Your task to perform on an android device: open app "Microsoft Outlook" Image 0: 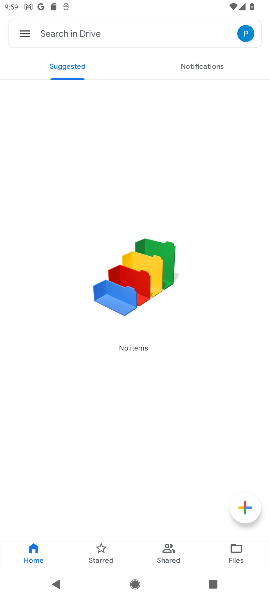
Step 0: press home button
Your task to perform on an android device: open app "Microsoft Outlook" Image 1: 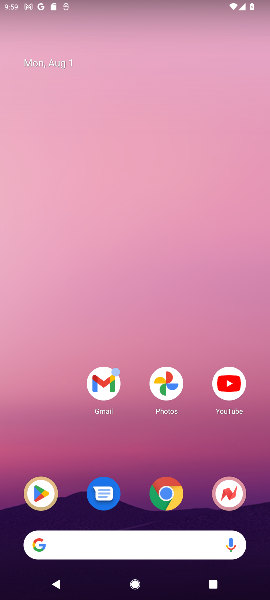
Step 1: click (51, 498)
Your task to perform on an android device: open app "Microsoft Outlook" Image 2: 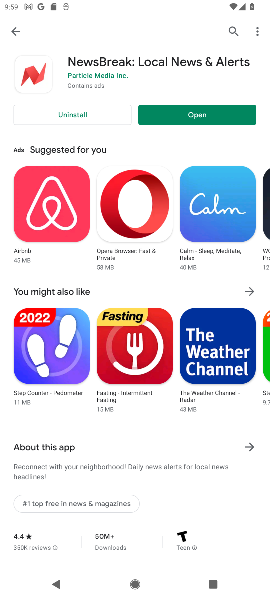
Step 2: click (245, 36)
Your task to perform on an android device: open app "Microsoft Outlook" Image 3: 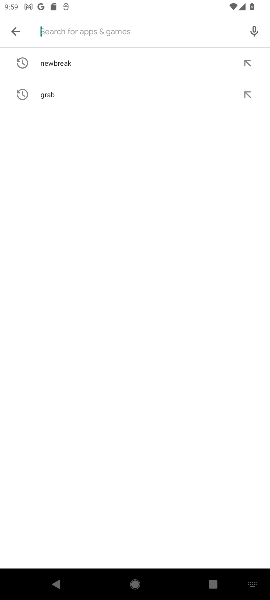
Step 3: type "outlook"
Your task to perform on an android device: open app "Microsoft Outlook" Image 4: 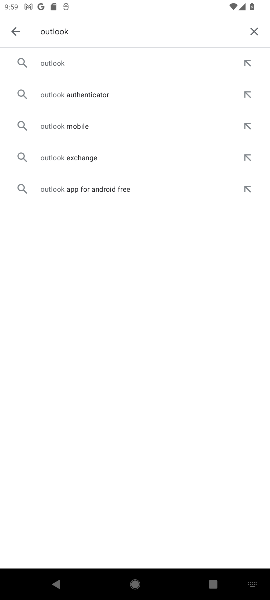
Step 4: click (73, 62)
Your task to perform on an android device: open app "Microsoft Outlook" Image 5: 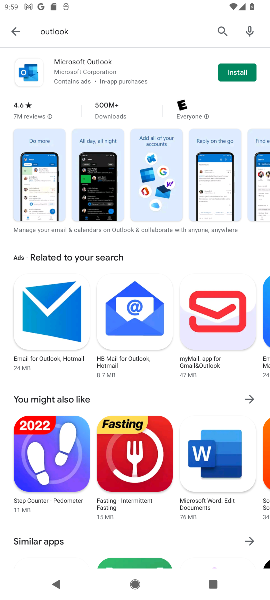
Step 5: click (255, 75)
Your task to perform on an android device: open app "Microsoft Outlook" Image 6: 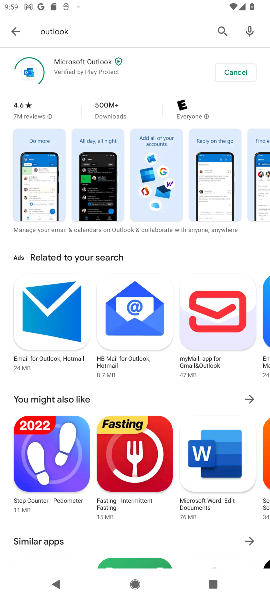
Step 6: task complete